Your task to perform on an android device: change alarm snooze length Image 0: 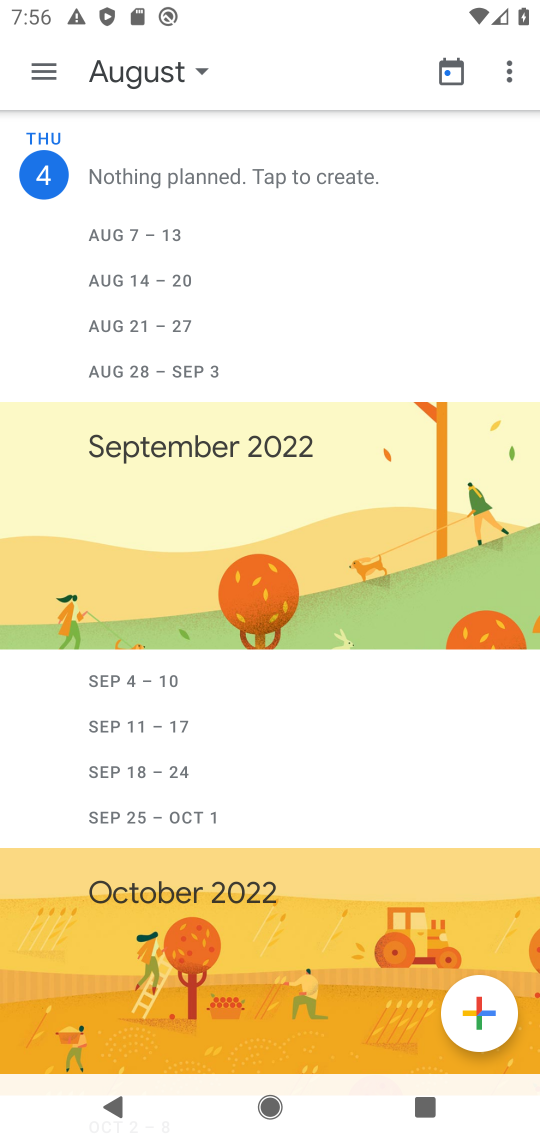
Step 0: press home button
Your task to perform on an android device: change alarm snooze length Image 1: 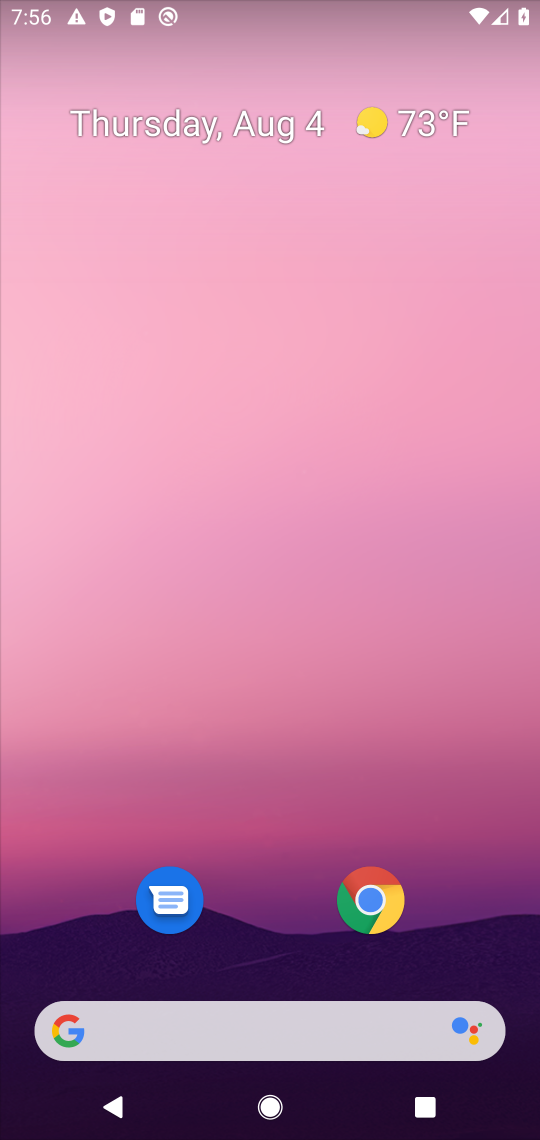
Step 1: drag from (282, 263) to (346, 46)
Your task to perform on an android device: change alarm snooze length Image 2: 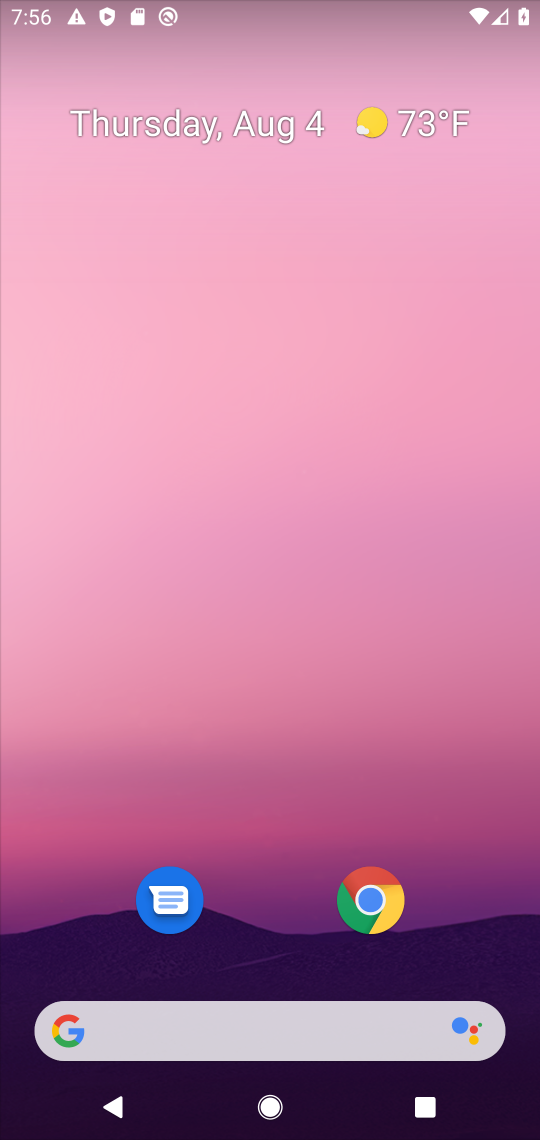
Step 2: drag from (249, 316) to (307, 112)
Your task to perform on an android device: change alarm snooze length Image 3: 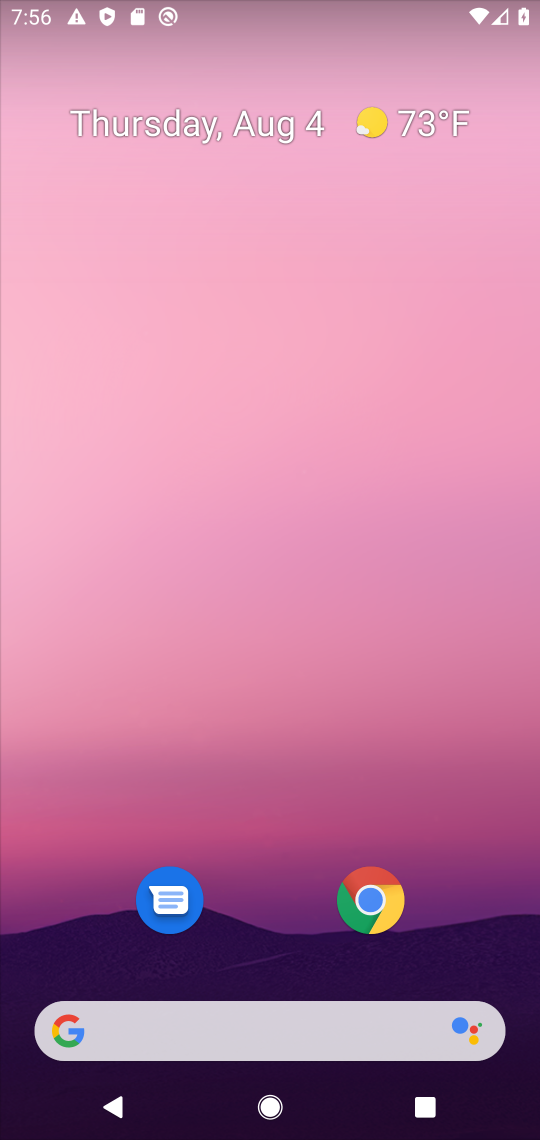
Step 3: click (283, 161)
Your task to perform on an android device: change alarm snooze length Image 4: 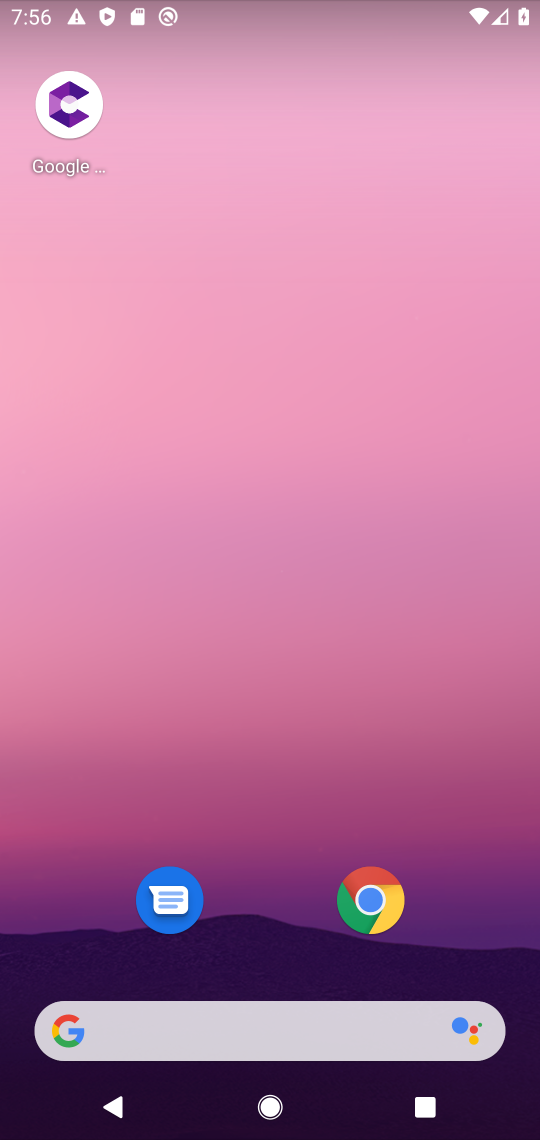
Step 4: drag from (255, 955) to (261, 358)
Your task to perform on an android device: change alarm snooze length Image 5: 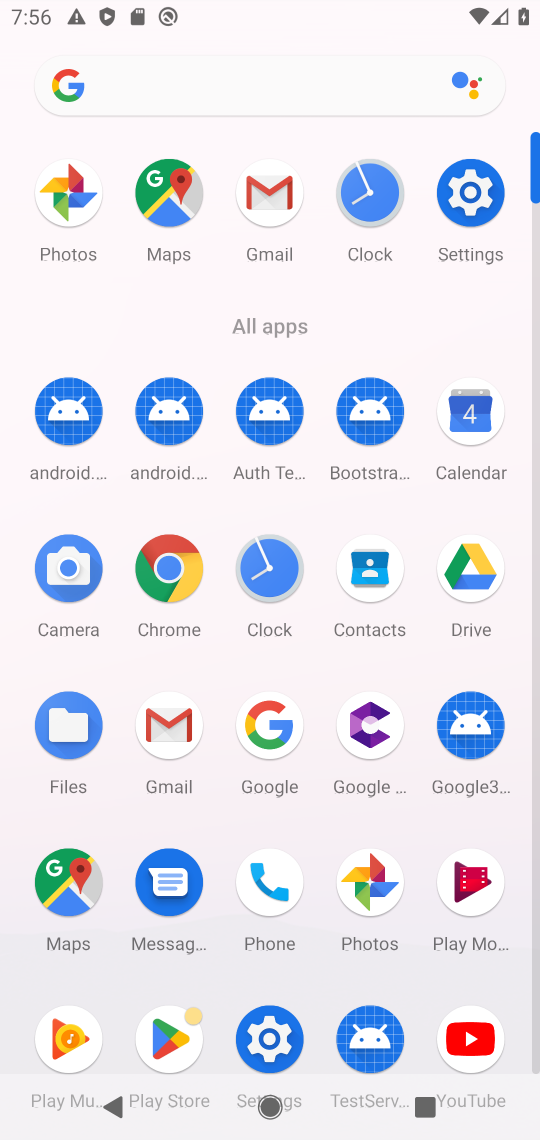
Step 5: click (267, 587)
Your task to perform on an android device: change alarm snooze length Image 6: 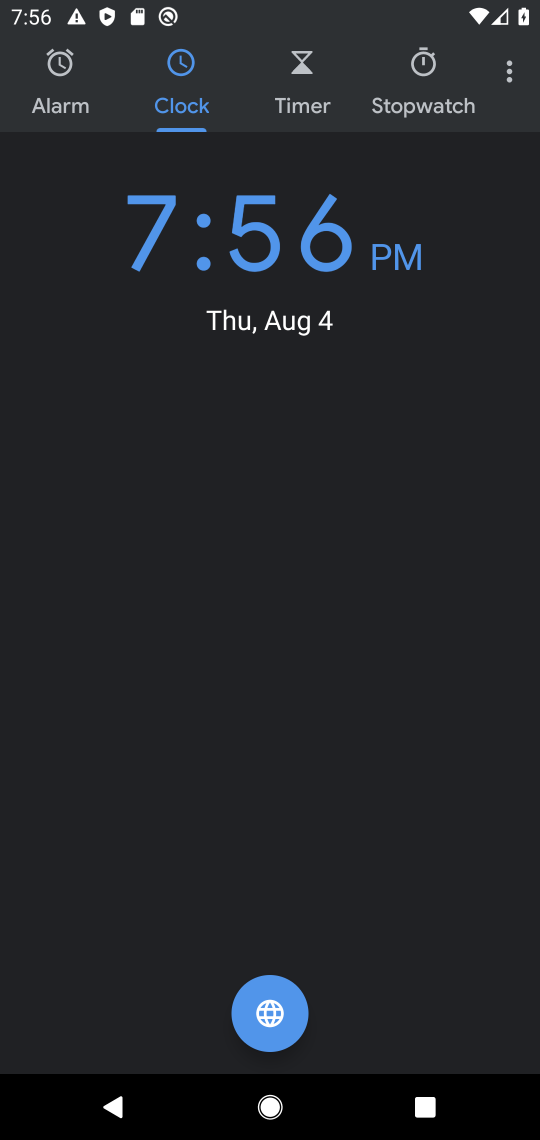
Step 6: click (512, 79)
Your task to perform on an android device: change alarm snooze length Image 7: 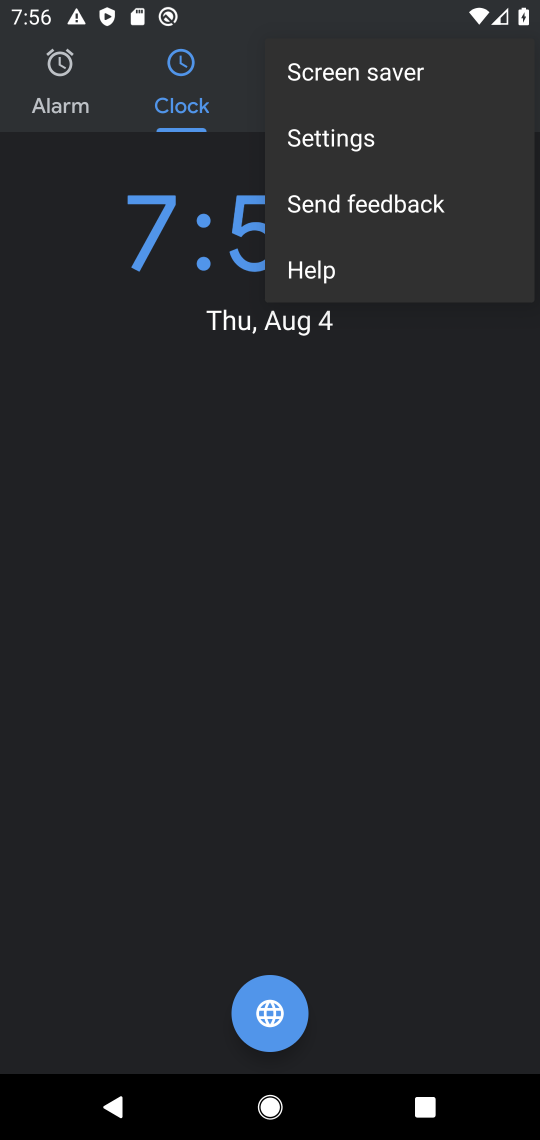
Step 7: click (350, 145)
Your task to perform on an android device: change alarm snooze length Image 8: 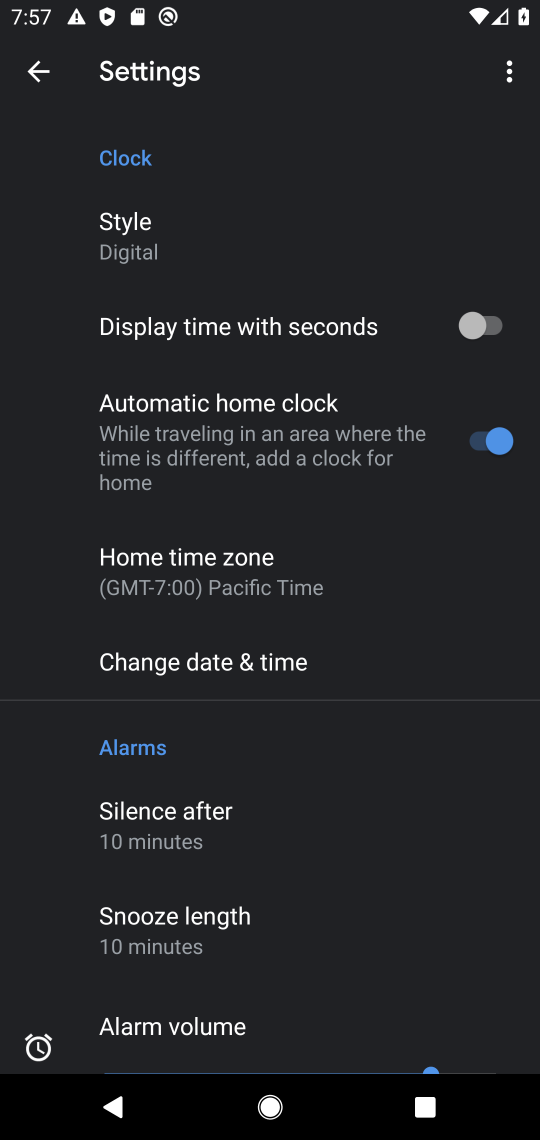
Step 8: click (232, 939)
Your task to perform on an android device: change alarm snooze length Image 9: 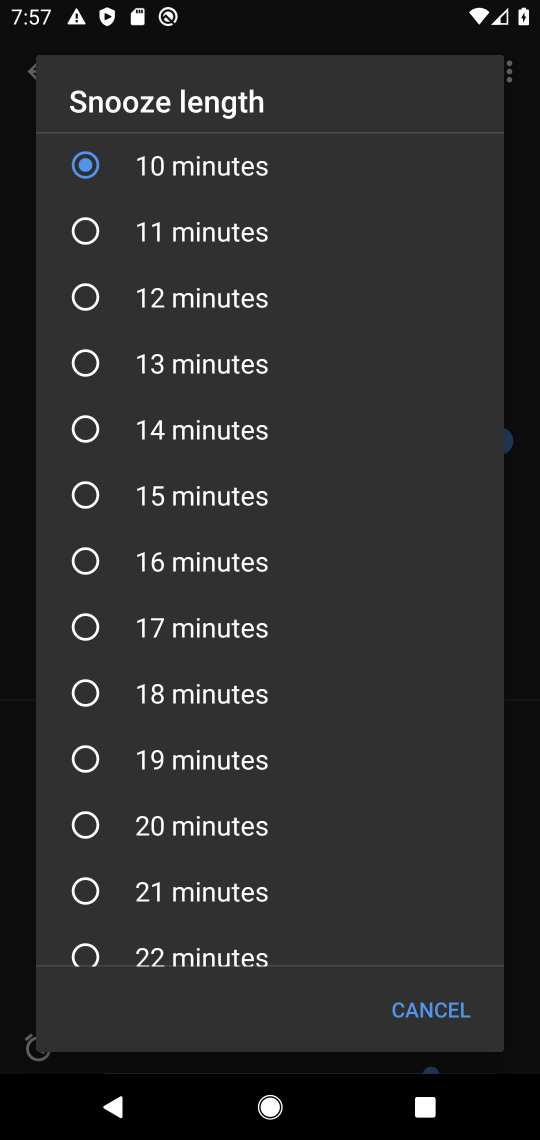
Step 9: click (90, 823)
Your task to perform on an android device: change alarm snooze length Image 10: 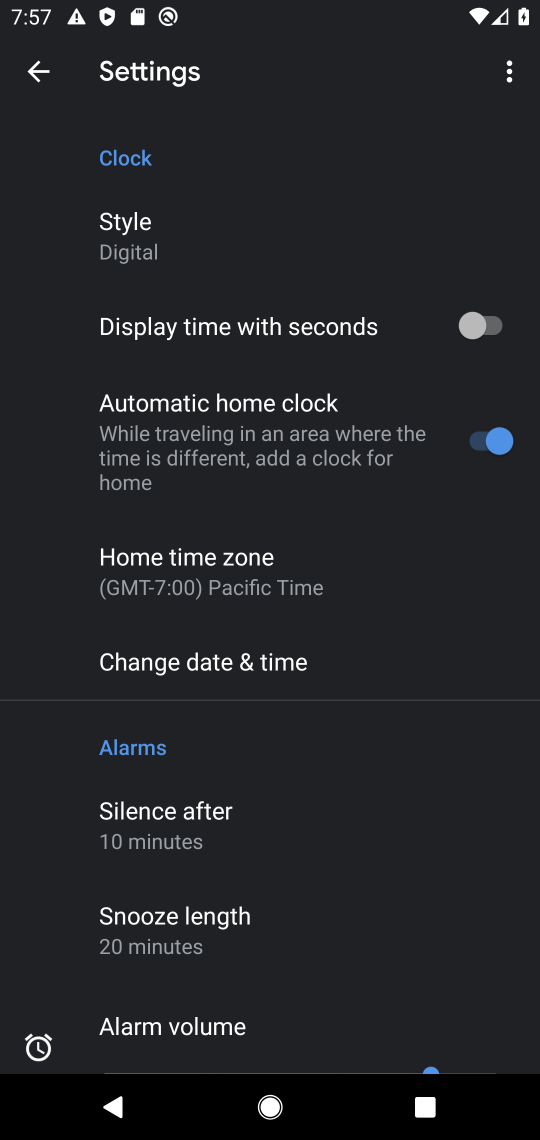
Step 10: task complete